Your task to perform on an android device: all mails in gmail Image 0: 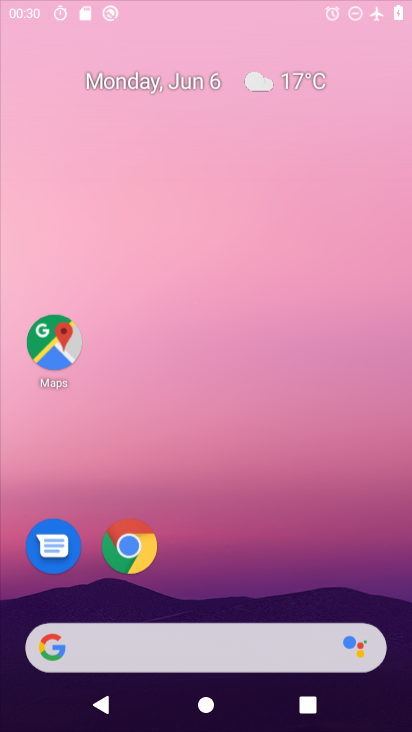
Step 0: click (269, 11)
Your task to perform on an android device: all mails in gmail Image 1: 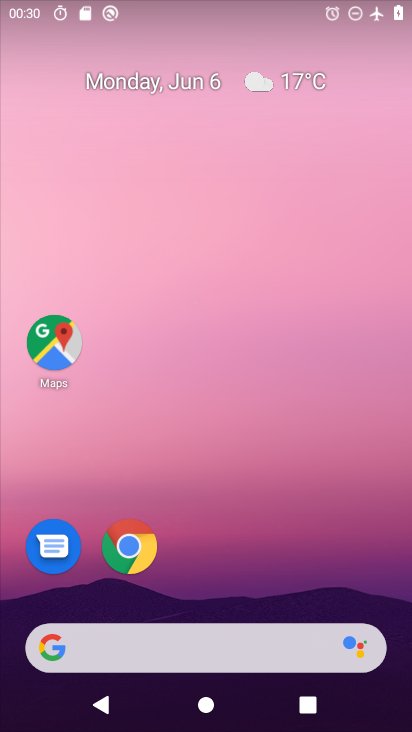
Step 1: click (300, 223)
Your task to perform on an android device: all mails in gmail Image 2: 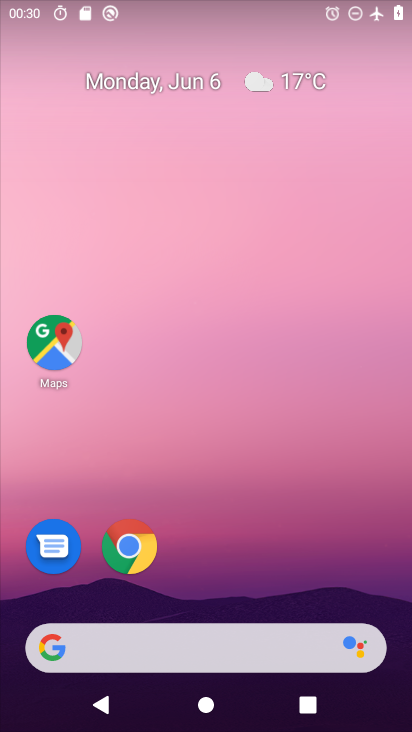
Step 2: drag from (190, 611) to (169, 6)
Your task to perform on an android device: all mails in gmail Image 3: 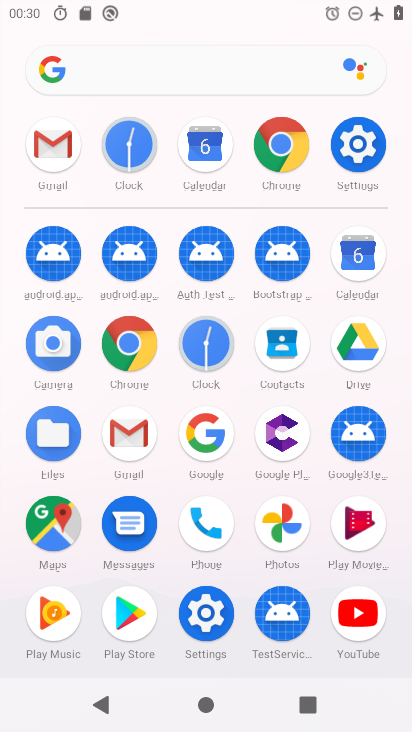
Step 3: click (140, 429)
Your task to perform on an android device: all mails in gmail Image 4: 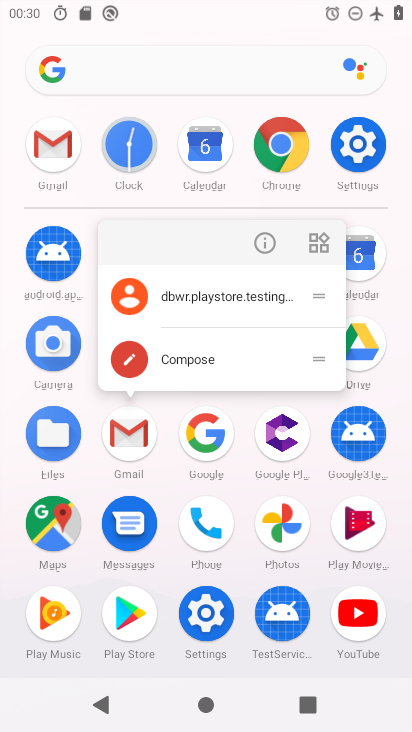
Step 4: click (261, 244)
Your task to perform on an android device: all mails in gmail Image 5: 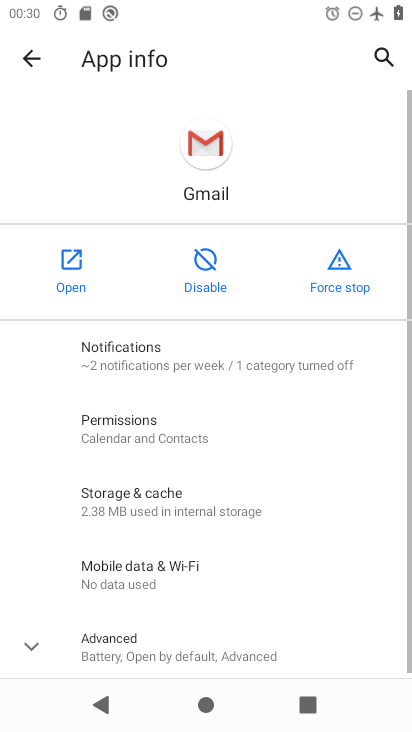
Step 5: click (70, 272)
Your task to perform on an android device: all mails in gmail Image 6: 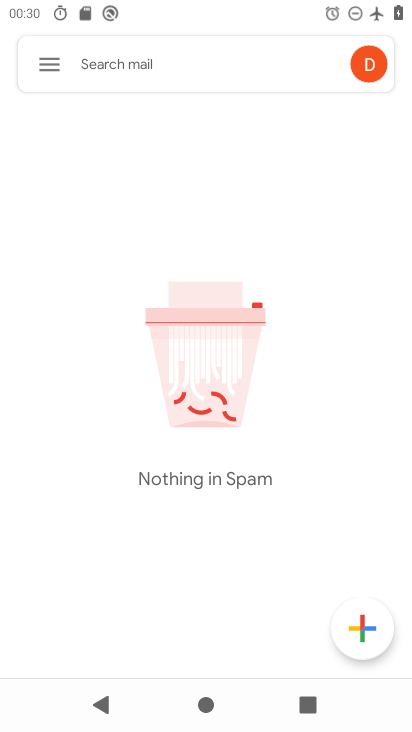
Step 6: click (40, 74)
Your task to perform on an android device: all mails in gmail Image 7: 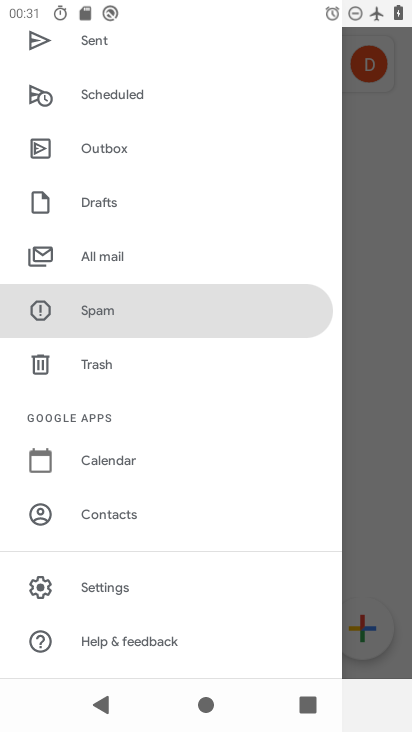
Step 7: drag from (142, 562) to (173, 72)
Your task to perform on an android device: all mails in gmail Image 8: 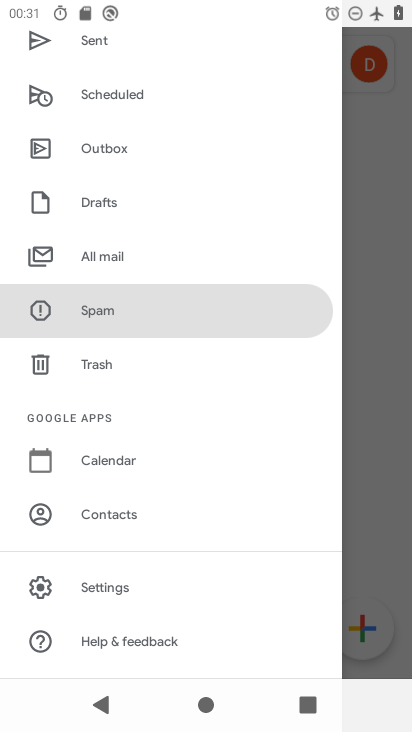
Step 8: click (78, 256)
Your task to perform on an android device: all mails in gmail Image 9: 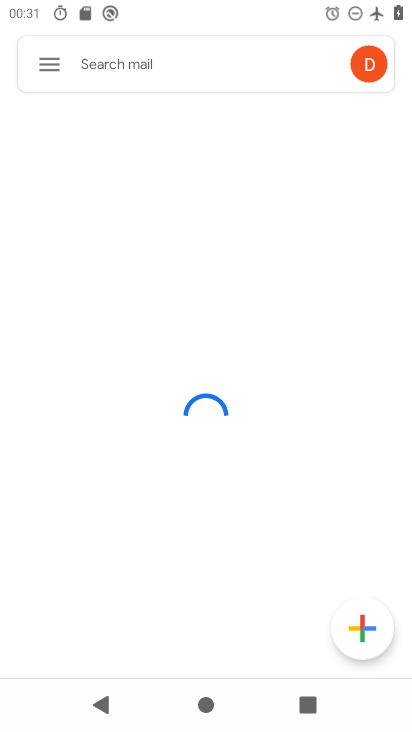
Step 9: drag from (233, 469) to (287, 176)
Your task to perform on an android device: all mails in gmail Image 10: 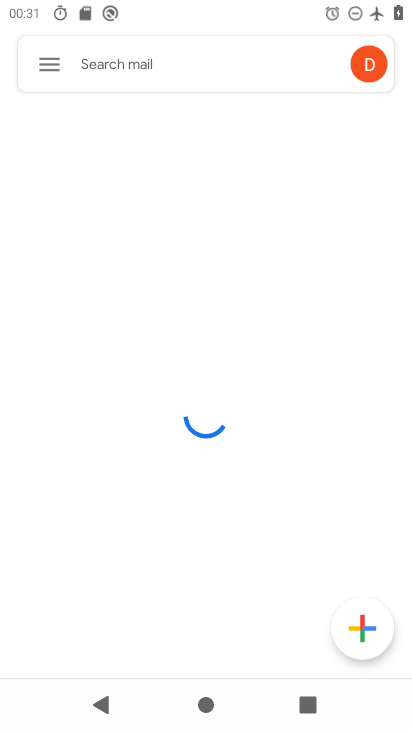
Step 10: click (62, 57)
Your task to perform on an android device: all mails in gmail Image 11: 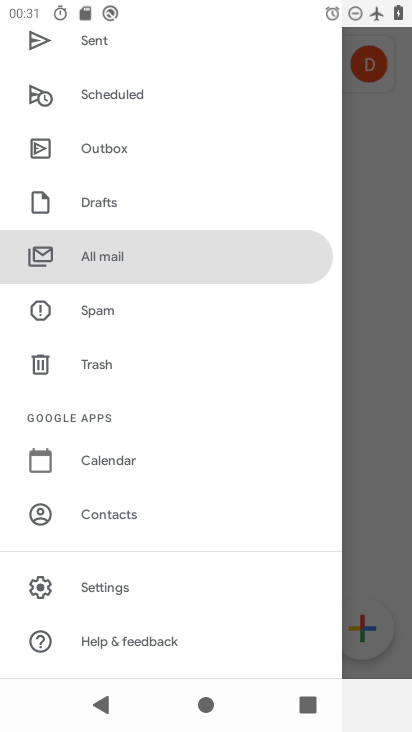
Step 11: click (53, 265)
Your task to perform on an android device: all mails in gmail Image 12: 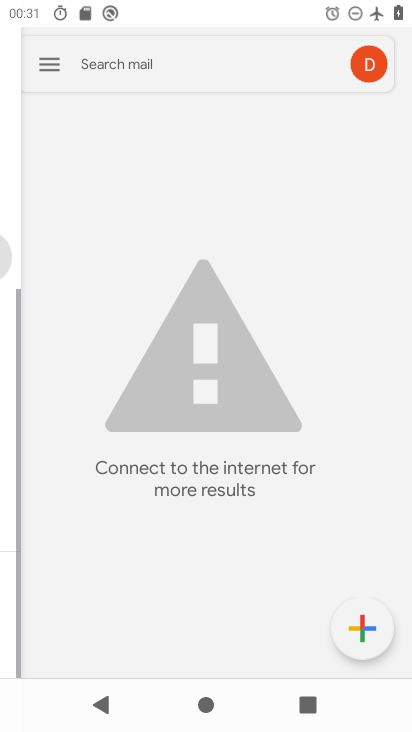
Step 12: task complete